Your task to perform on an android device: turn off location Image 0: 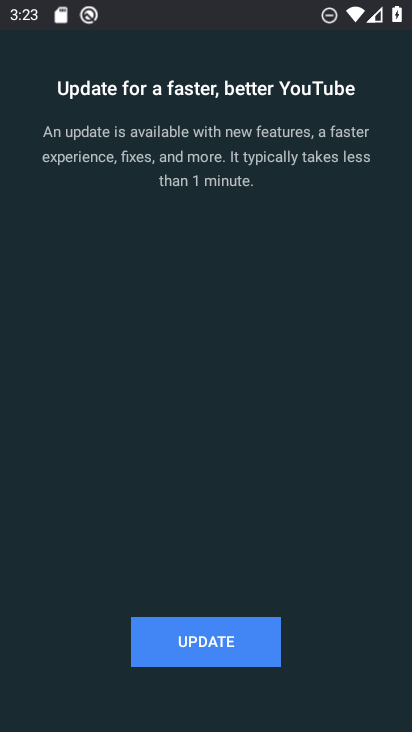
Step 0: press home button
Your task to perform on an android device: turn off location Image 1: 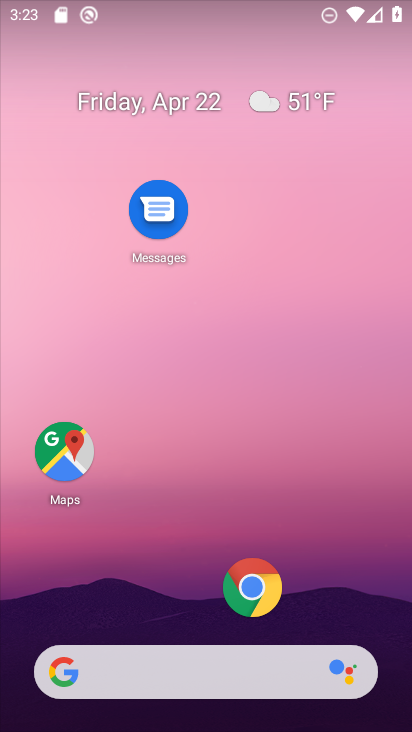
Step 1: drag from (202, 565) to (264, 134)
Your task to perform on an android device: turn off location Image 2: 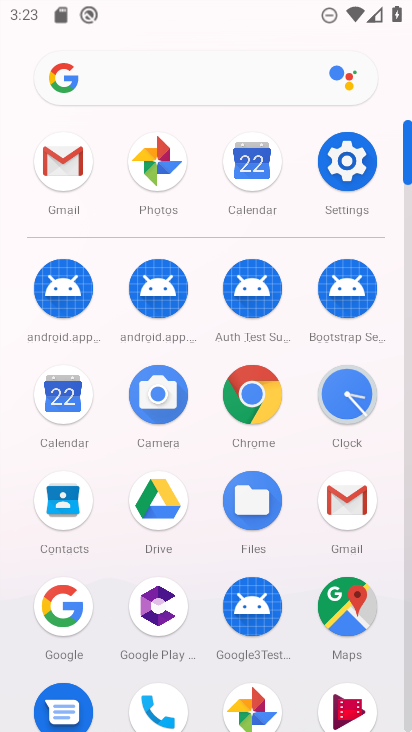
Step 2: click (337, 159)
Your task to perform on an android device: turn off location Image 3: 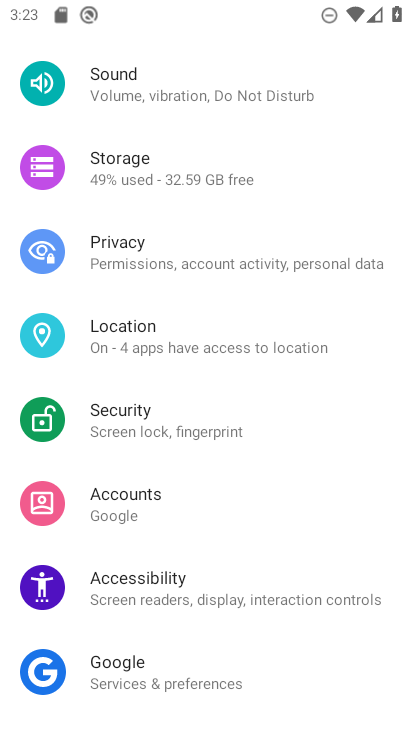
Step 3: click (103, 339)
Your task to perform on an android device: turn off location Image 4: 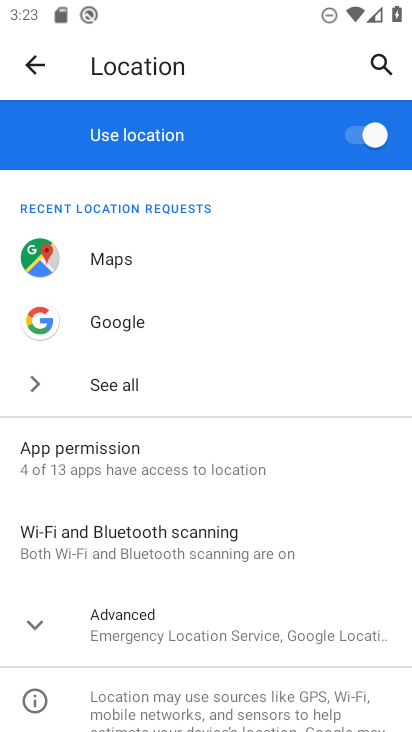
Step 4: drag from (237, 610) to (290, 387)
Your task to perform on an android device: turn off location Image 5: 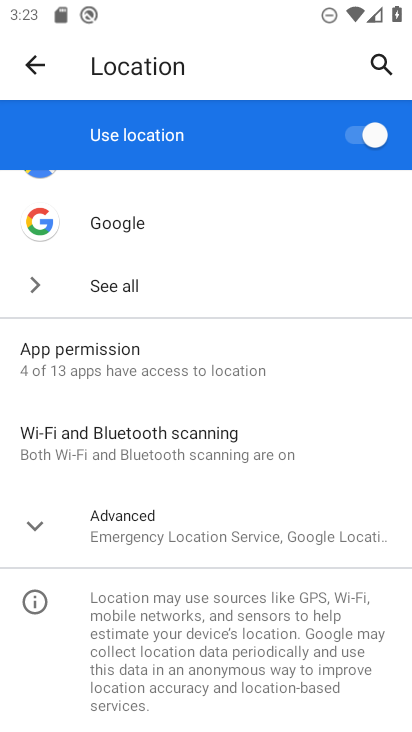
Step 5: click (357, 141)
Your task to perform on an android device: turn off location Image 6: 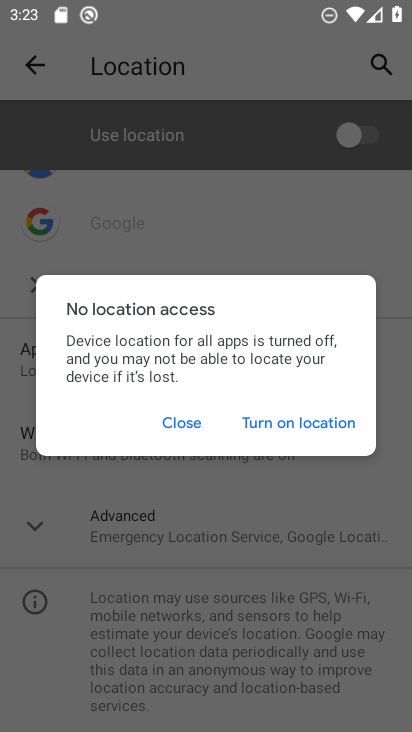
Step 6: task complete